Your task to perform on an android device: Open calendar and show me the first week of next month Image 0: 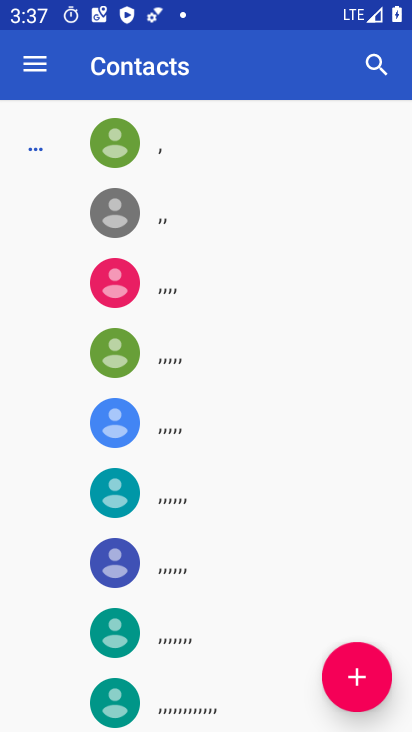
Step 0: press home button
Your task to perform on an android device: Open calendar and show me the first week of next month Image 1: 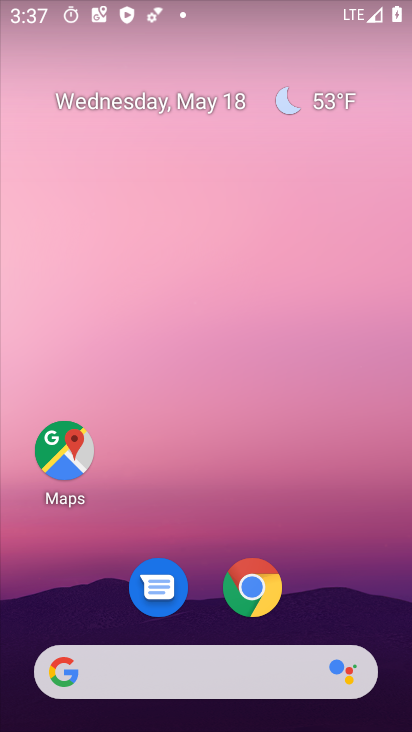
Step 1: drag from (183, 504) to (261, 60)
Your task to perform on an android device: Open calendar and show me the first week of next month Image 2: 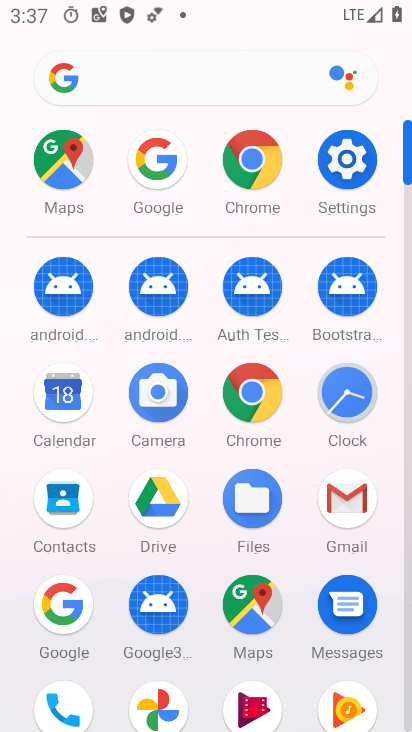
Step 2: click (70, 404)
Your task to perform on an android device: Open calendar and show me the first week of next month Image 3: 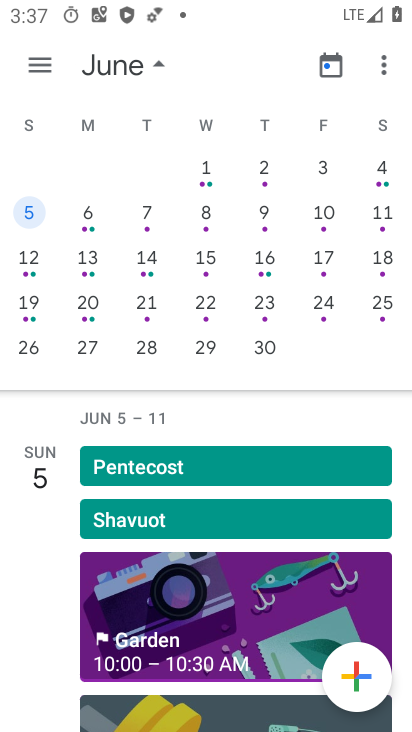
Step 3: click (37, 219)
Your task to perform on an android device: Open calendar and show me the first week of next month Image 4: 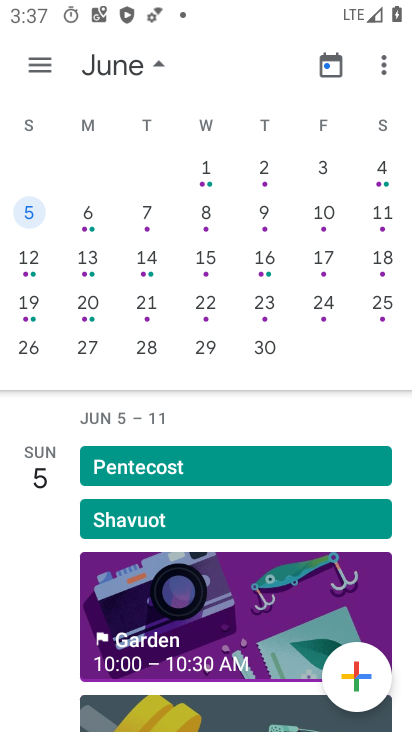
Step 4: task complete